Your task to perform on an android device: turn on data saver in the chrome app Image 0: 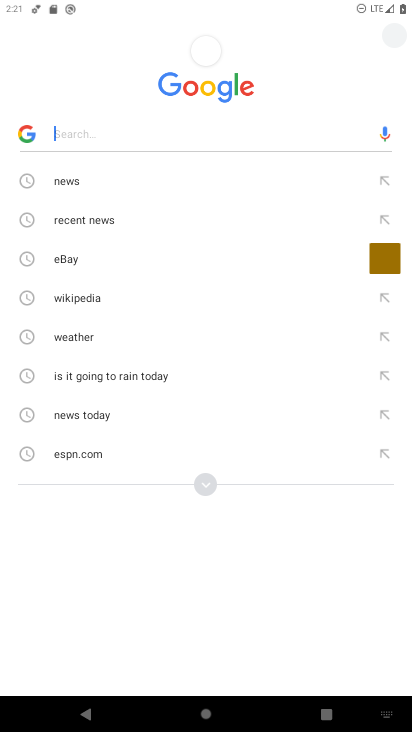
Step 0: press home button
Your task to perform on an android device: turn on data saver in the chrome app Image 1: 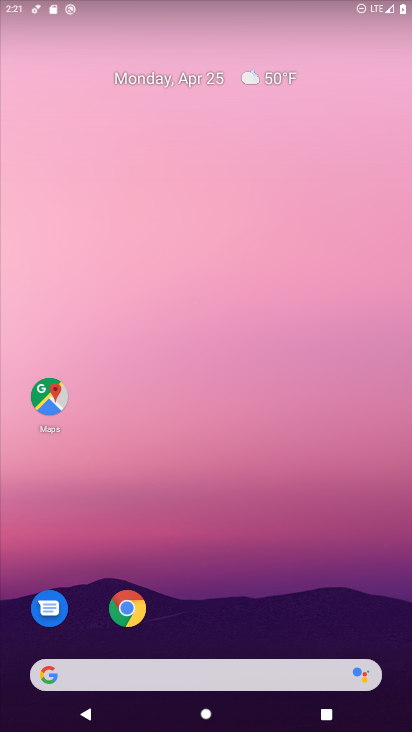
Step 1: drag from (314, 499) to (193, 48)
Your task to perform on an android device: turn on data saver in the chrome app Image 2: 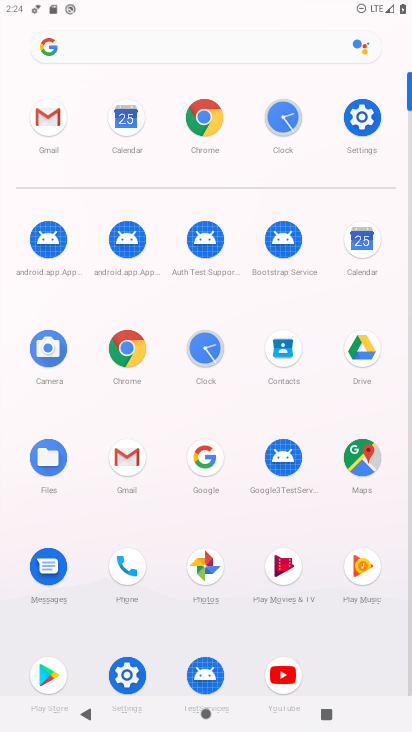
Step 2: click (205, 135)
Your task to perform on an android device: turn on data saver in the chrome app Image 3: 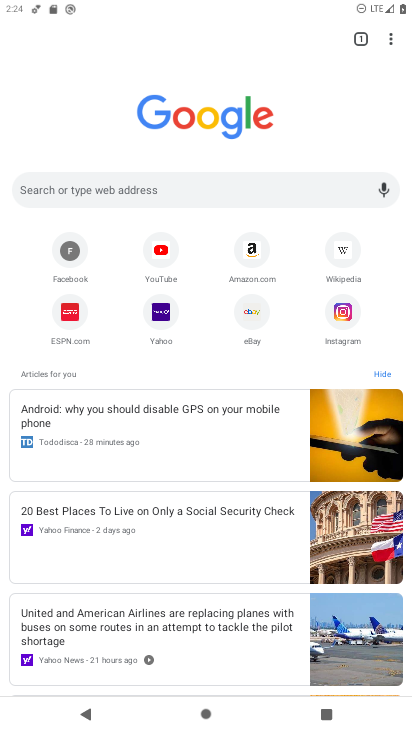
Step 3: click (393, 35)
Your task to perform on an android device: turn on data saver in the chrome app Image 4: 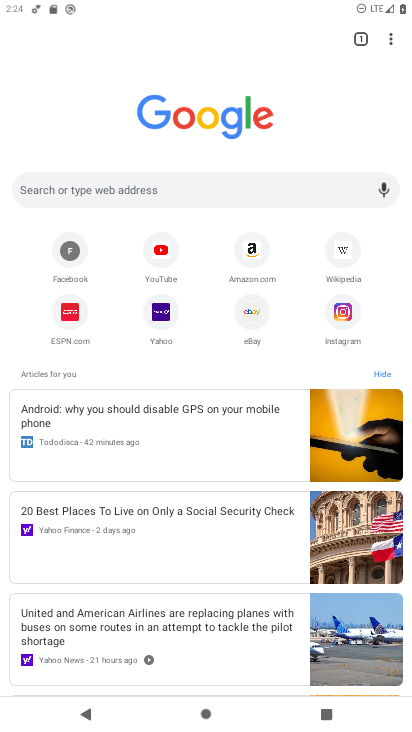
Step 4: click (390, 39)
Your task to perform on an android device: turn on data saver in the chrome app Image 5: 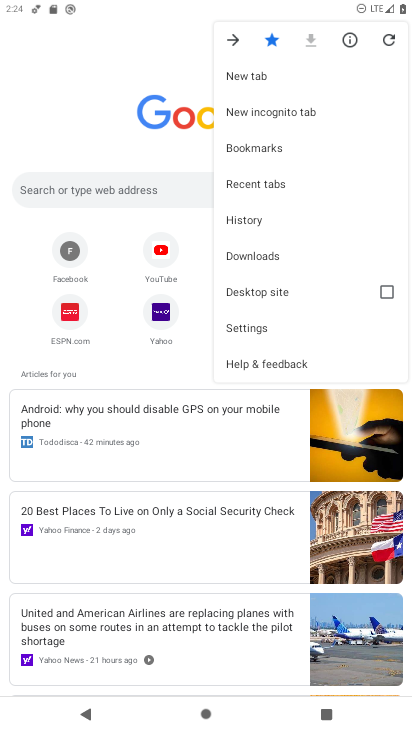
Step 5: click (290, 326)
Your task to perform on an android device: turn on data saver in the chrome app Image 6: 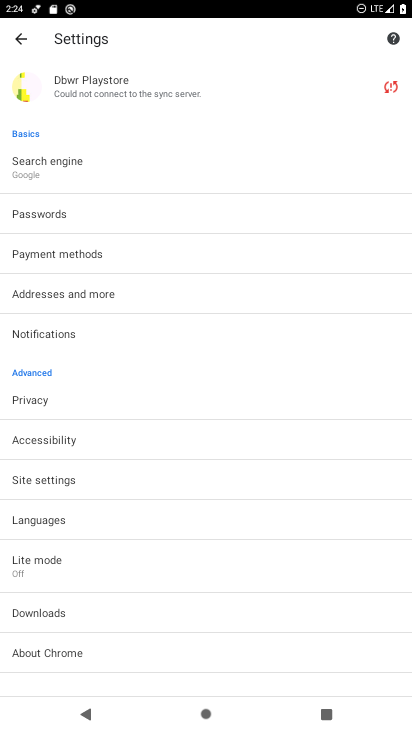
Step 6: click (106, 572)
Your task to perform on an android device: turn on data saver in the chrome app Image 7: 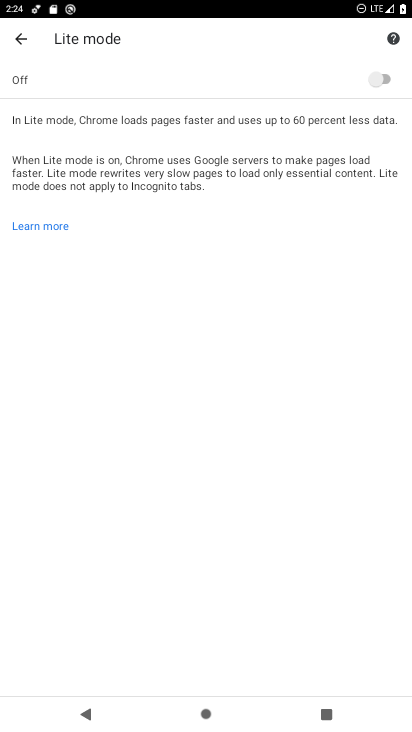
Step 7: click (345, 80)
Your task to perform on an android device: turn on data saver in the chrome app Image 8: 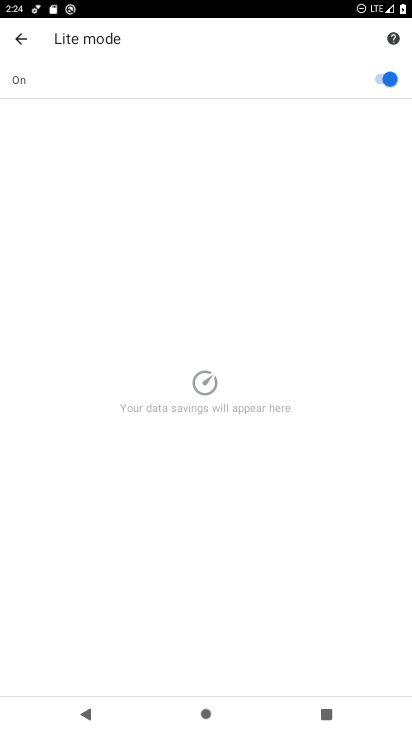
Step 8: task complete